Your task to perform on an android device: Play the new Beyonce video on YouTube Image 0: 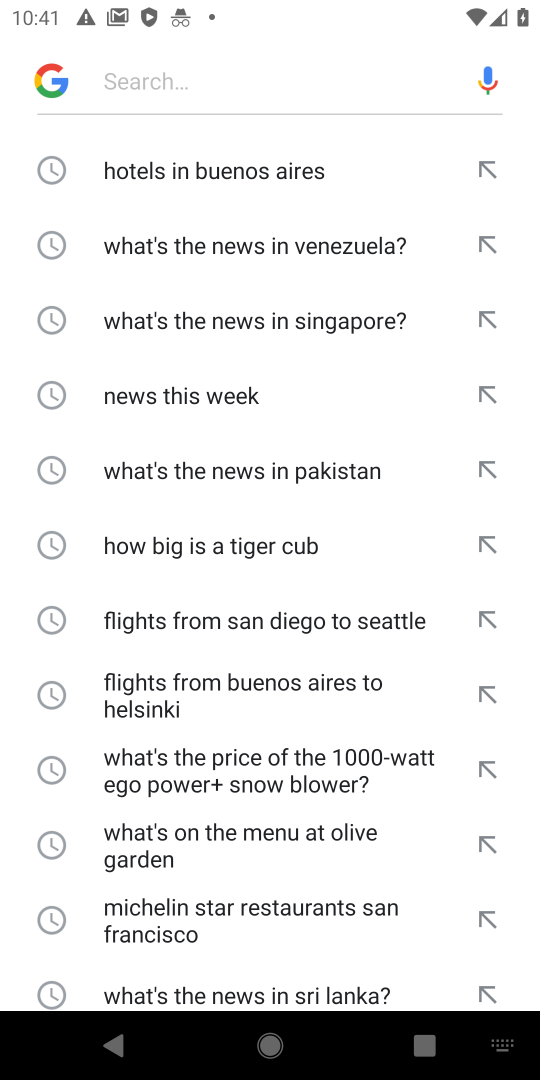
Step 0: press home button
Your task to perform on an android device: Play the new Beyonce video on YouTube Image 1: 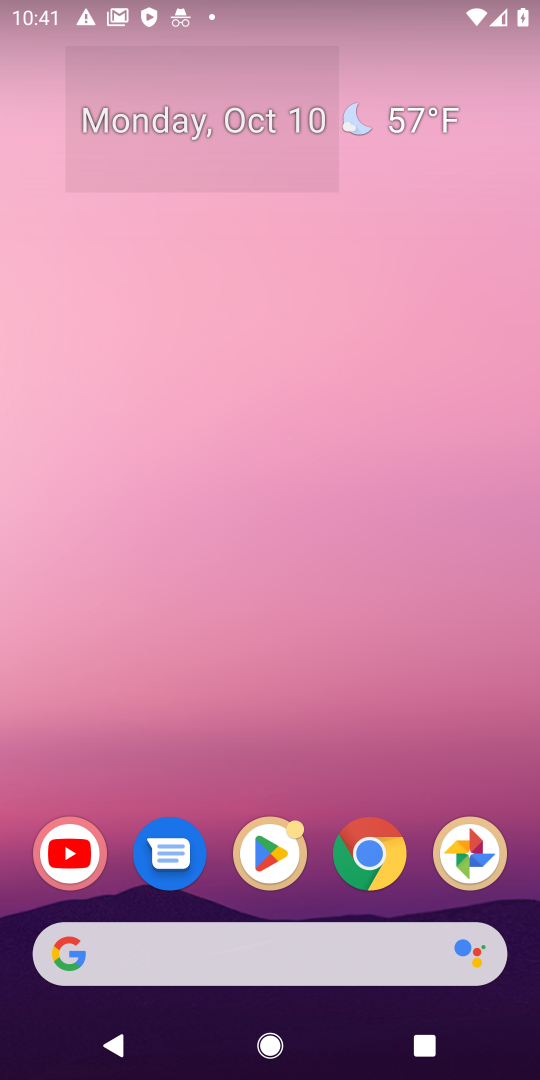
Step 1: drag from (499, 733) to (459, 101)
Your task to perform on an android device: Play the new Beyonce video on YouTube Image 2: 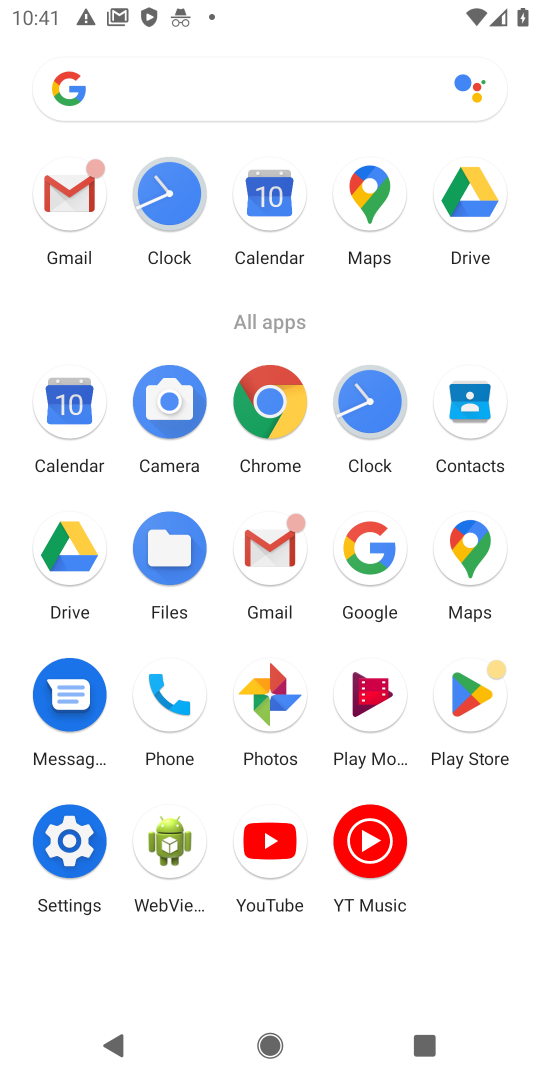
Step 2: click (273, 847)
Your task to perform on an android device: Play the new Beyonce video on YouTube Image 3: 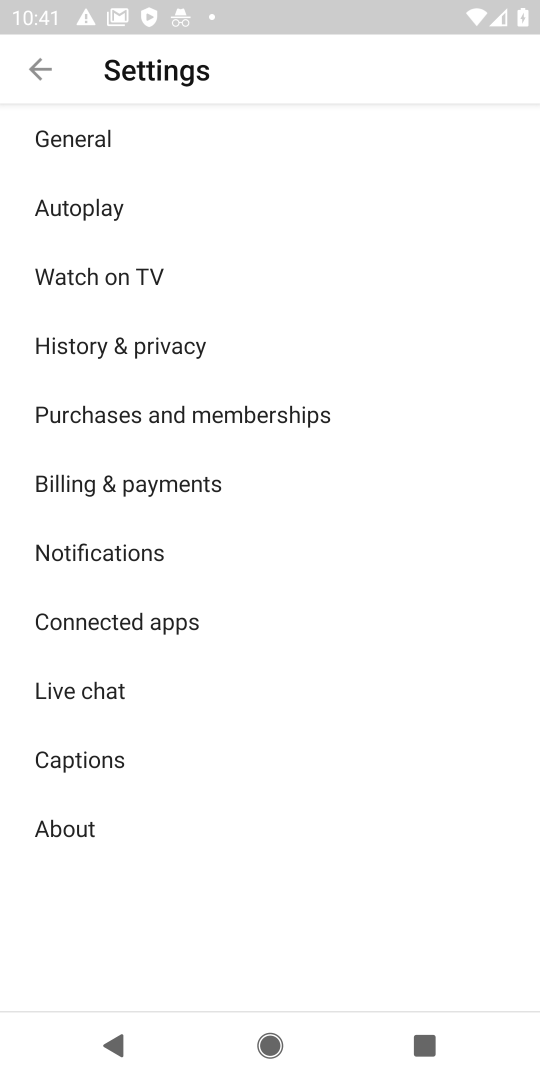
Step 3: press back button
Your task to perform on an android device: Play the new Beyonce video on YouTube Image 4: 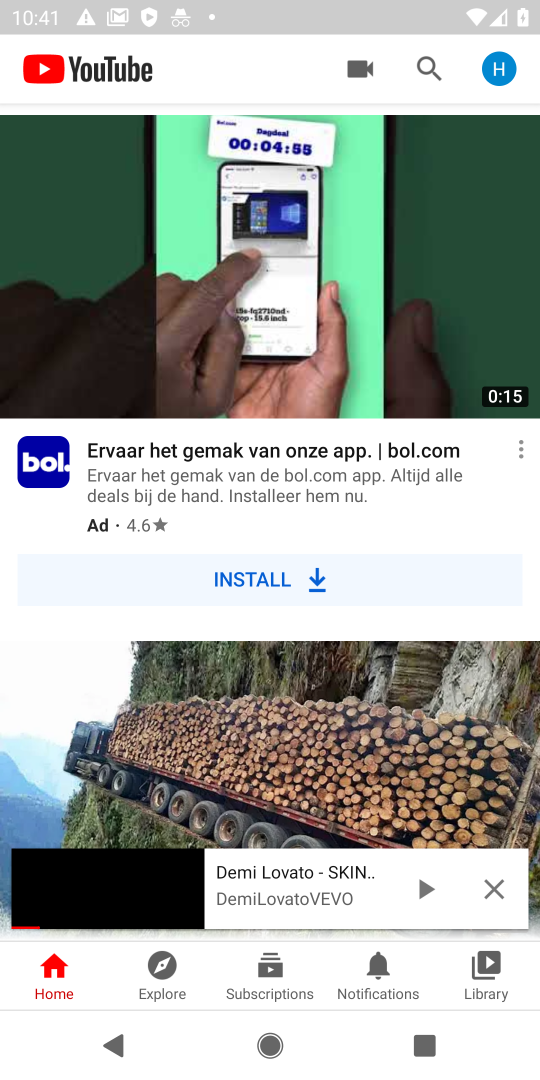
Step 4: click (425, 60)
Your task to perform on an android device: Play the new Beyonce video on YouTube Image 5: 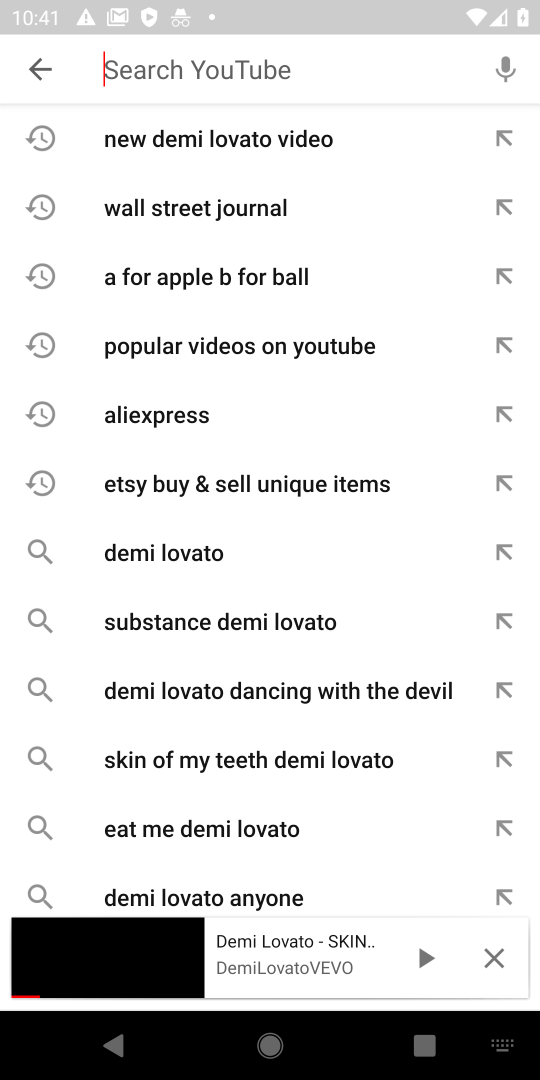
Step 5: type "new Beyonce video"
Your task to perform on an android device: Play the new Beyonce video on YouTube Image 6: 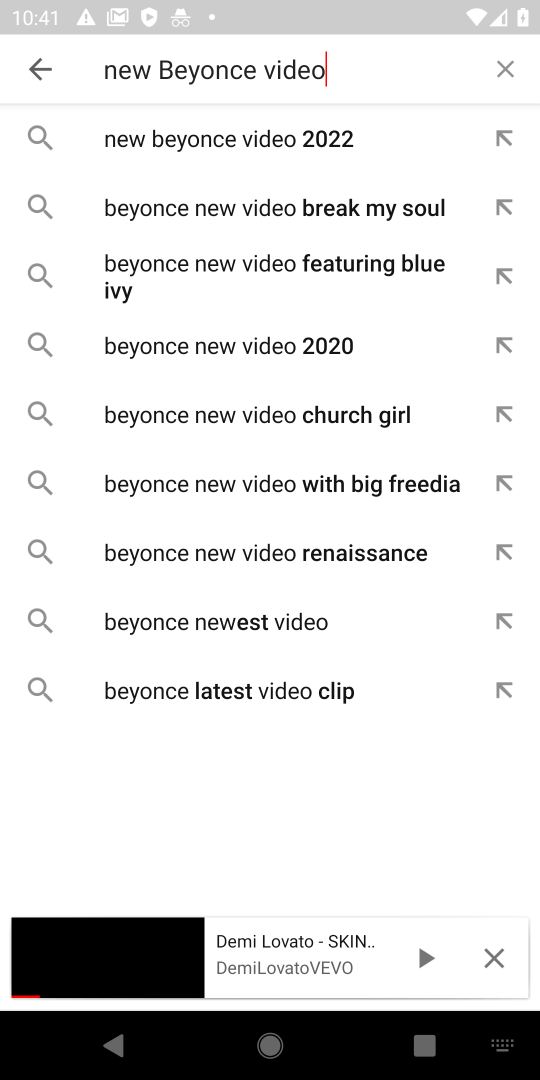
Step 6: press enter
Your task to perform on an android device: Play the new Beyonce video on YouTube Image 7: 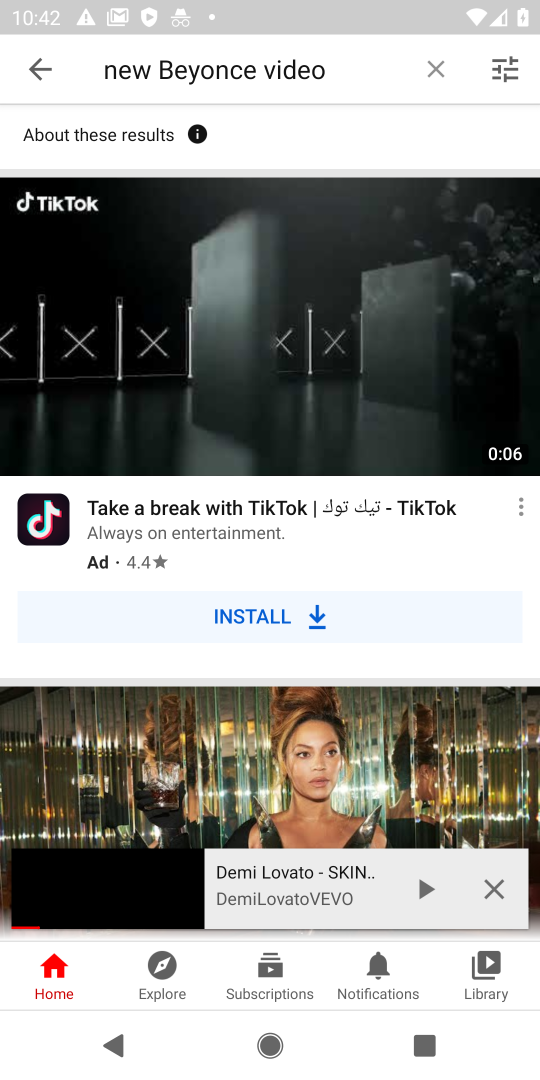
Step 7: click (498, 890)
Your task to perform on an android device: Play the new Beyonce video on YouTube Image 8: 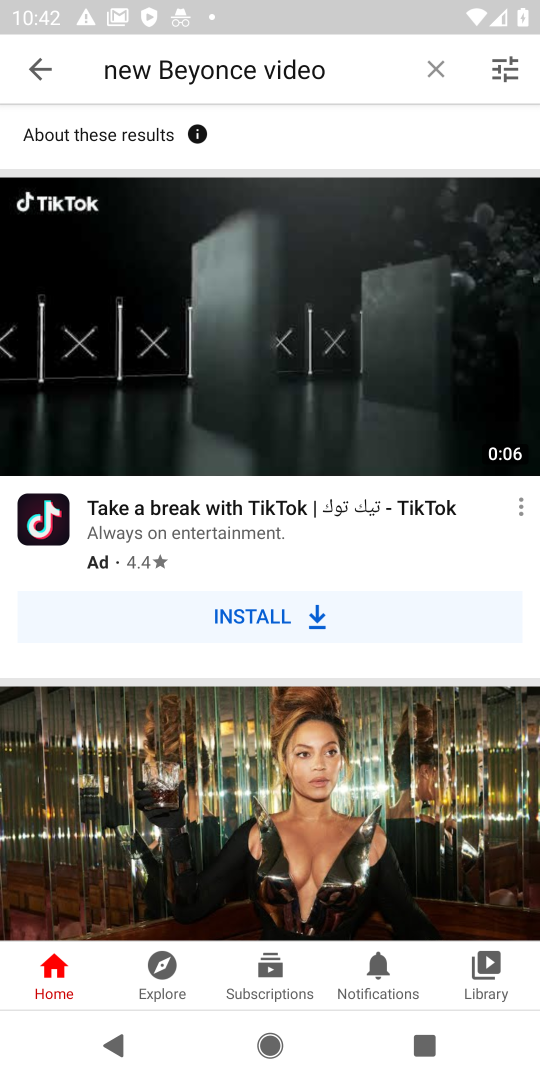
Step 8: drag from (350, 770) to (373, 176)
Your task to perform on an android device: Play the new Beyonce video on YouTube Image 9: 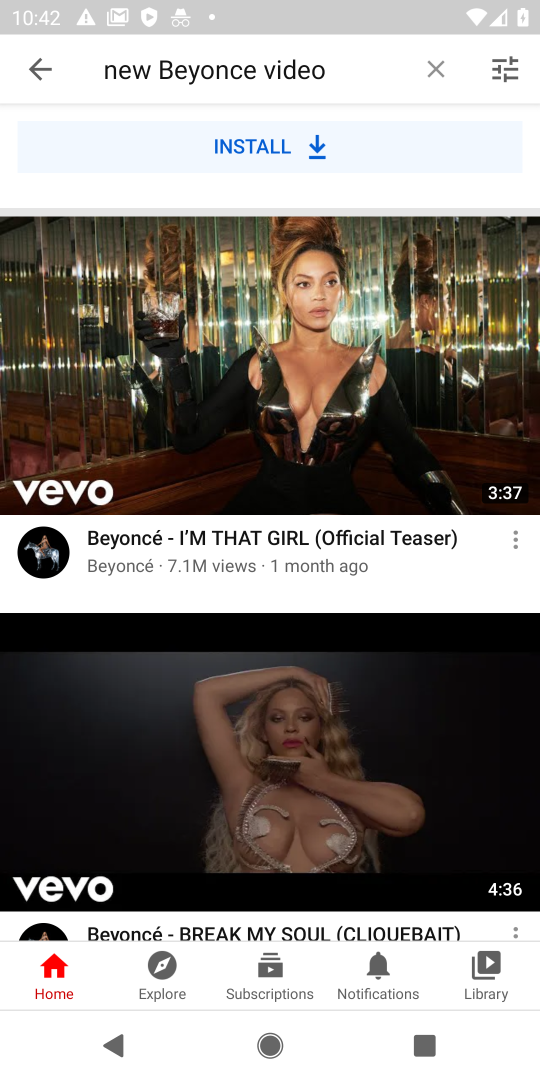
Step 9: click (343, 406)
Your task to perform on an android device: Play the new Beyonce video on YouTube Image 10: 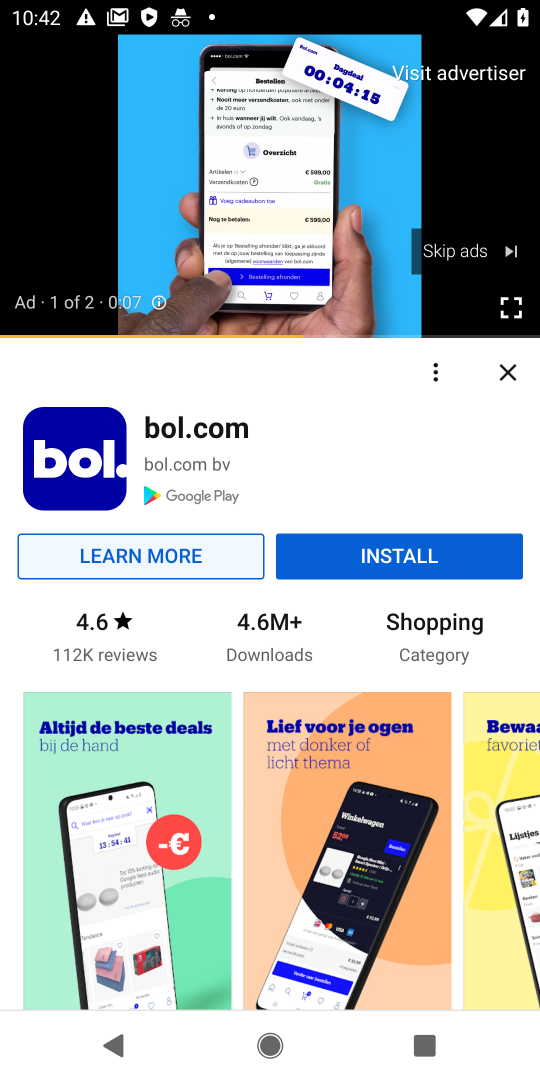
Step 10: click (444, 251)
Your task to perform on an android device: Play the new Beyonce video on YouTube Image 11: 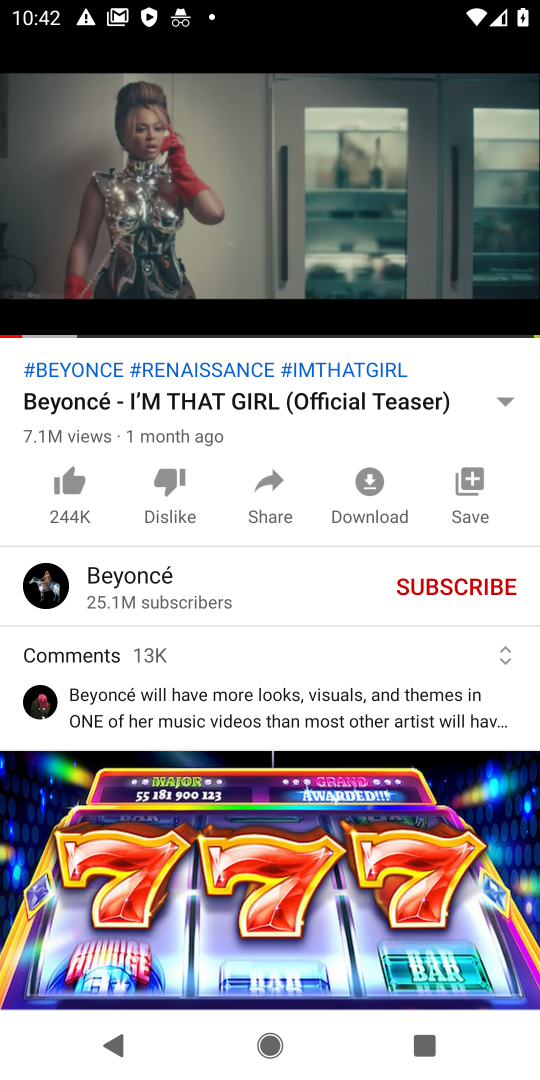
Step 11: task complete